Your task to perform on an android device: Turn off the flashlight Image 0: 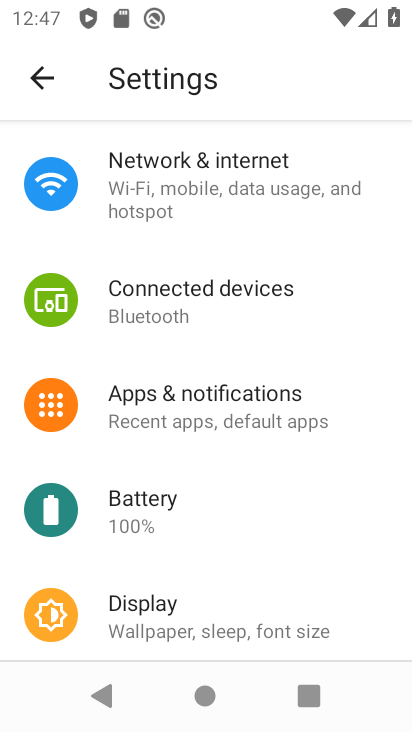
Step 0: drag from (216, 637) to (217, 196)
Your task to perform on an android device: Turn off the flashlight Image 1: 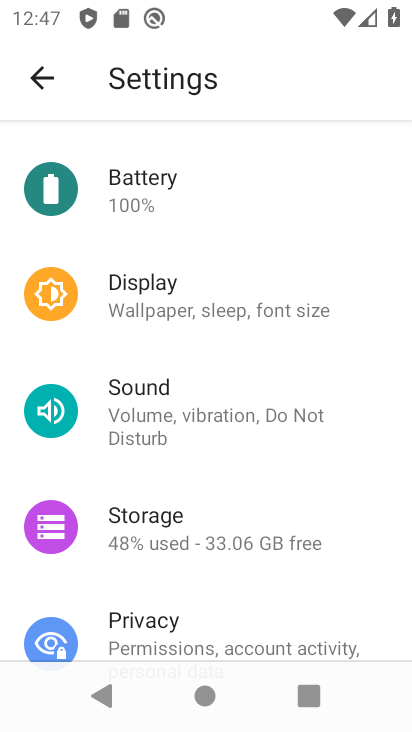
Step 1: task complete